Your task to perform on an android device: Go to accessibility settings Image 0: 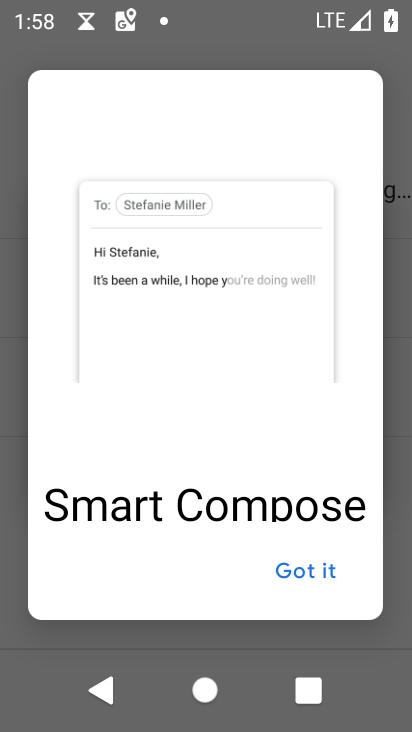
Step 0: press home button
Your task to perform on an android device: Go to accessibility settings Image 1: 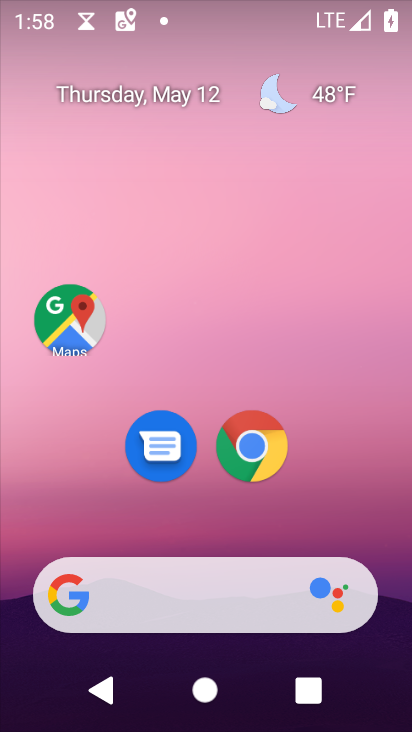
Step 1: drag from (301, 532) to (290, 105)
Your task to perform on an android device: Go to accessibility settings Image 2: 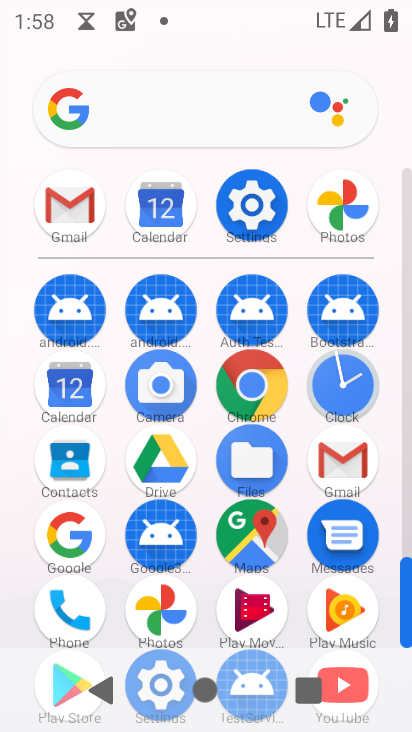
Step 2: click (272, 193)
Your task to perform on an android device: Go to accessibility settings Image 3: 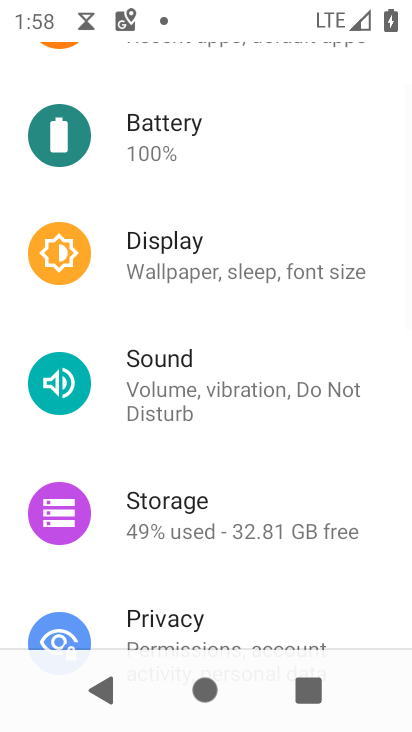
Step 3: drag from (286, 499) to (284, 147)
Your task to perform on an android device: Go to accessibility settings Image 4: 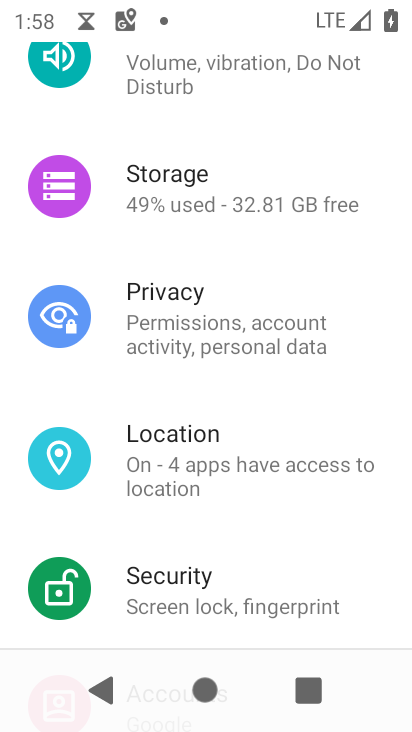
Step 4: drag from (258, 554) to (298, 194)
Your task to perform on an android device: Go to accessibility settings Image 5: 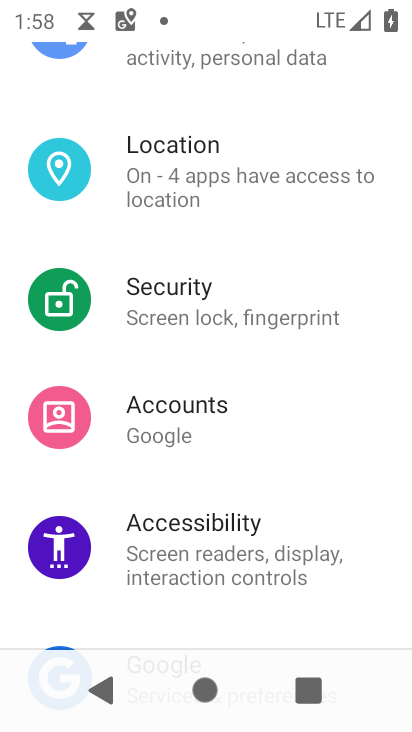
Step 5: click (219, 546)
Your task to perform on an android device: Go to accessibility settings Image 6: 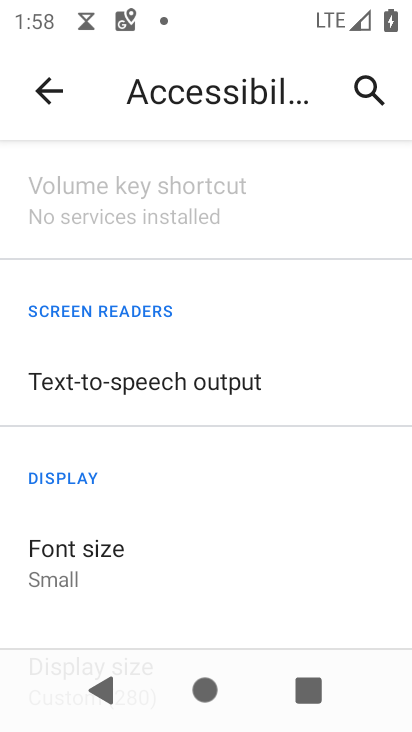
Step 6: task complete